Your task to perform on an android device: Go to Google Image 0: 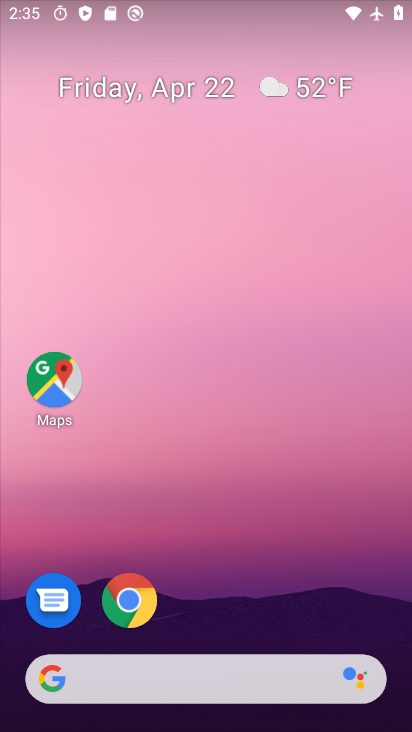
Step 0: drag from (209, 718) to (211, 112)
Your task to perform on an android device: Go to Google Image 1: 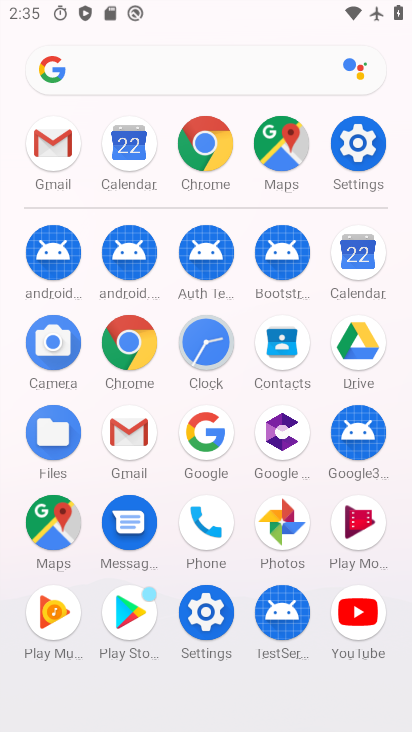
Step 1: click (208, 429)
Your task to perform on an android device: Go to Google Image 2: 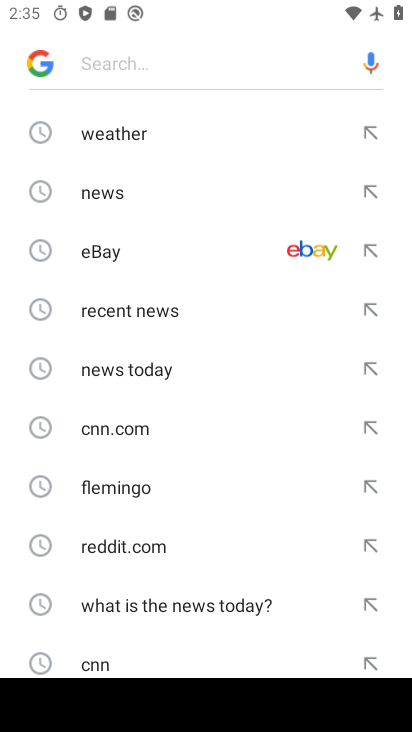
Step 2: task complete